Your task to perform on an android device: Search for "razer nari" on ebay.com, select the first entry, add it to the cart, then select checkout. Image 0: 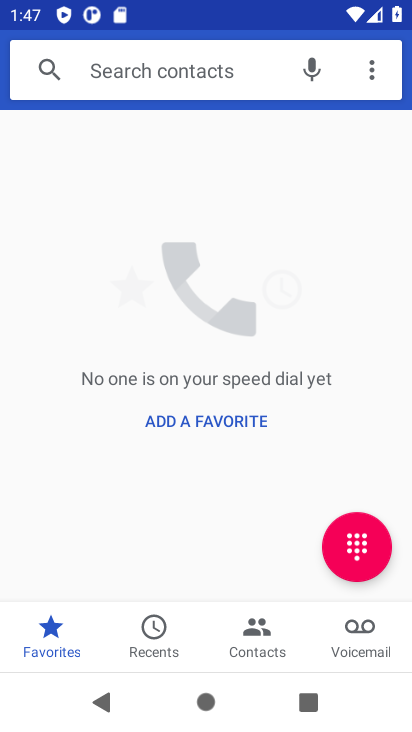
Step 0: press home button
Your task to perform on an android device: Search for "razer nari" on ebay.com, select the first entry, add it to the cart, then select checkout. Image 1: 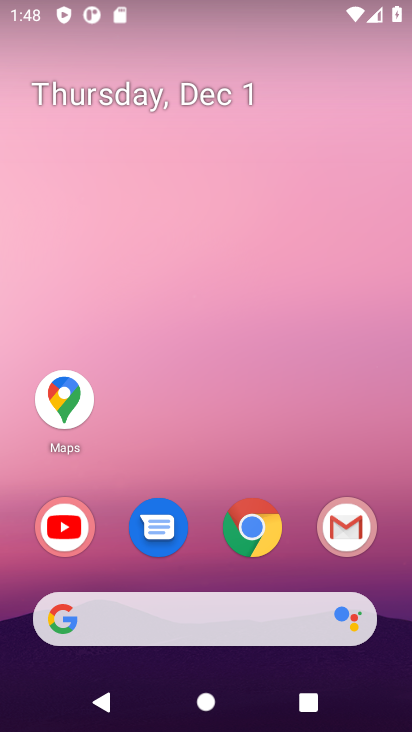
Step 1: click (247, 532)
Your task to perform on an android device: Search for "razer nari" on ebay.com, select the first entry, add it to the cart, then select checkout. Image 2: 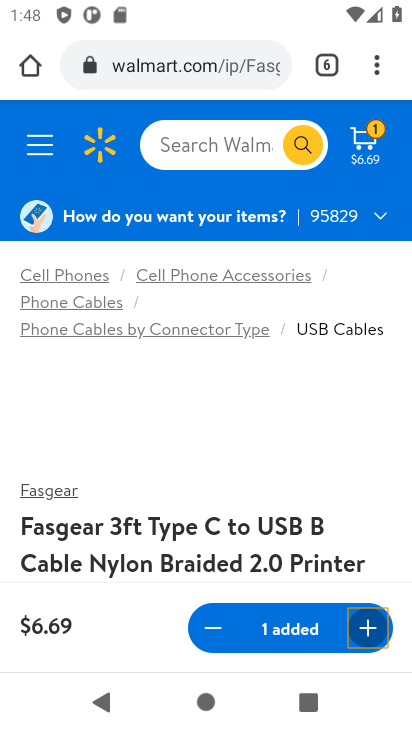
Step 2: click (183, 70)
Your task to perform on an android device: Search for "razer nari" on ebay.com, select the first entry, add it to the cart, then select checkout. Image 3: 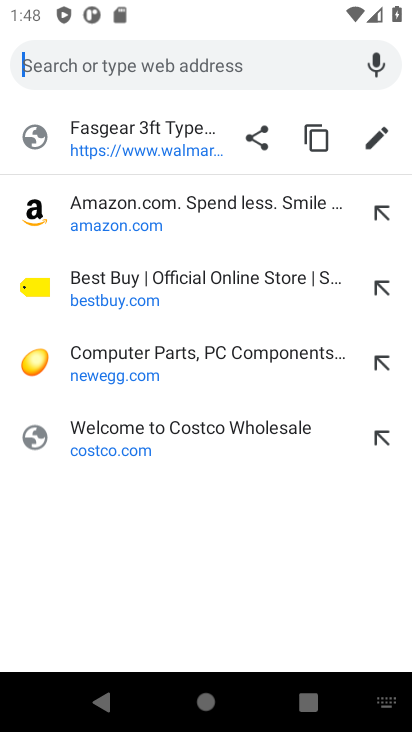
Step 3: type "ebay.com"
Your task to perform on an android device: Search for "razer nari" on ebay.com, select the first entry, add it to the cart, then select checkout. Image 4: 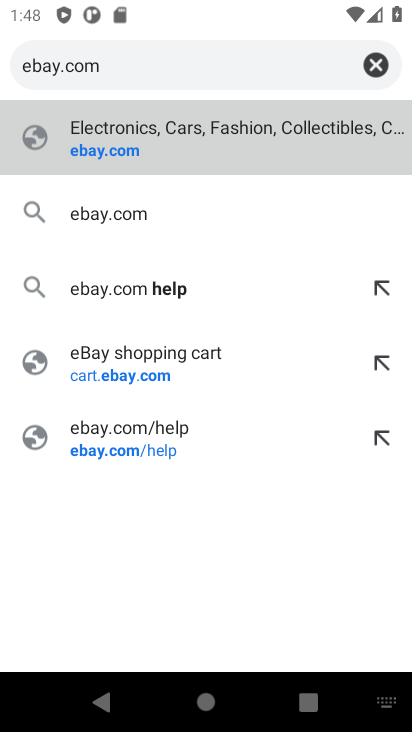
Step 4: click (119, 148)
Your task to perform on an android device: Search for "razer nari" on ebay.com, select the first entry, add it to the cart, then select checkout. Image 5: 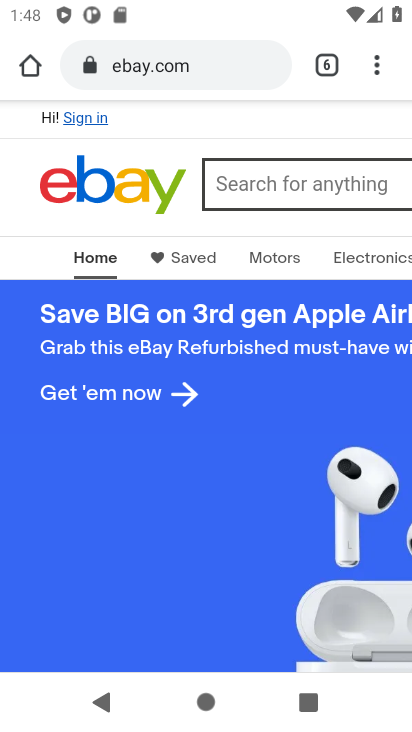
Step 5: click (326, 174)
Your task to perform on an android device: Search for "razer nari" on ebay.com, select the first entry, add it to the cart, then select checkout. Image 6: 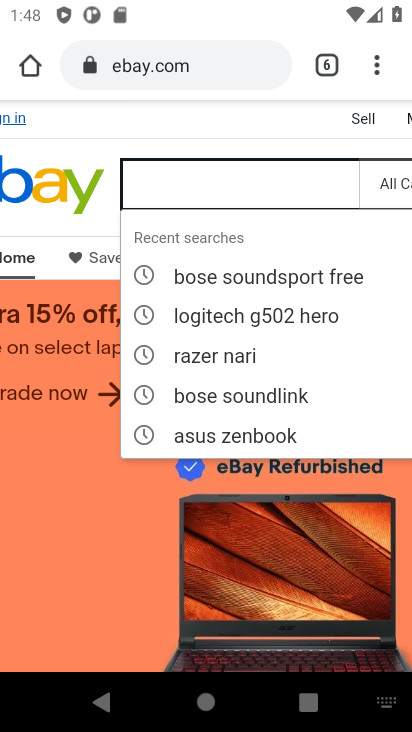
Step 6: type "razer nari"
Your task to perform on an android device: Search for "razer nari" on ebay.com, select the first entry, add it to the cart, then select checkout. Image 7: 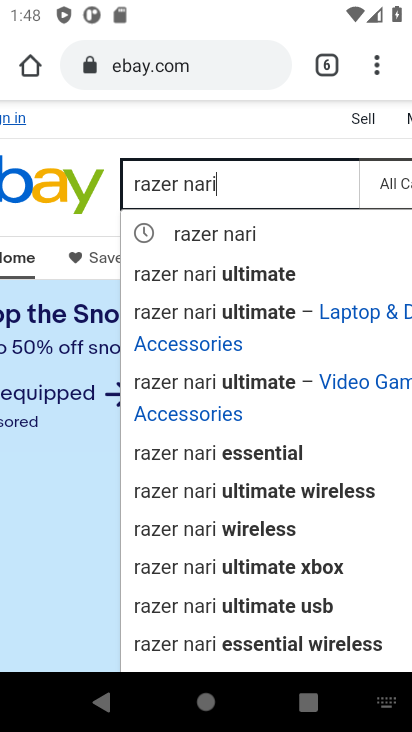
Step 7: click (200, 242)
Your task to perform on an android device: Search for "razer nari" on ebay.com, select the first entry, add it to the cart, then select checkout. Image 8: 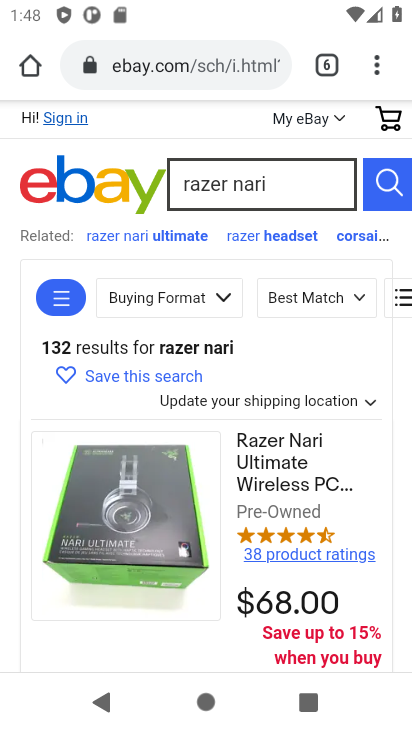
Step 8: drag from (310, 474) to (310, 342)
Your task to perform on an android device: Search for "razer nari" on ebay.com, select the first entry, add it to the cart, then select checkout. Image 9: 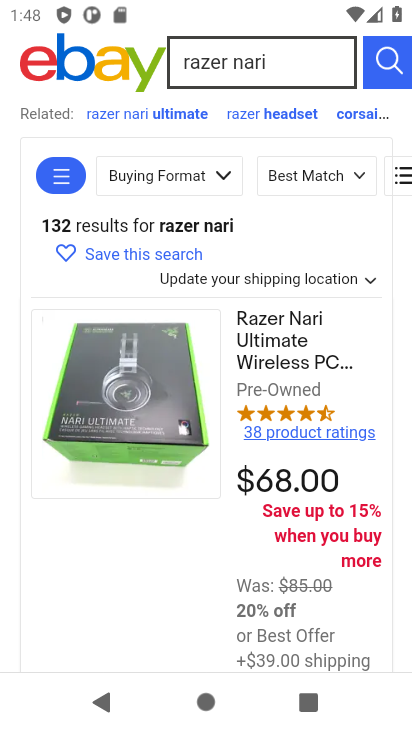
Step 9: click (289, 370)
Your task to perform on an android device: Search for "razer nari" on ebay.com, select the first entry, add it to the cart, then select checkout. Image 10: 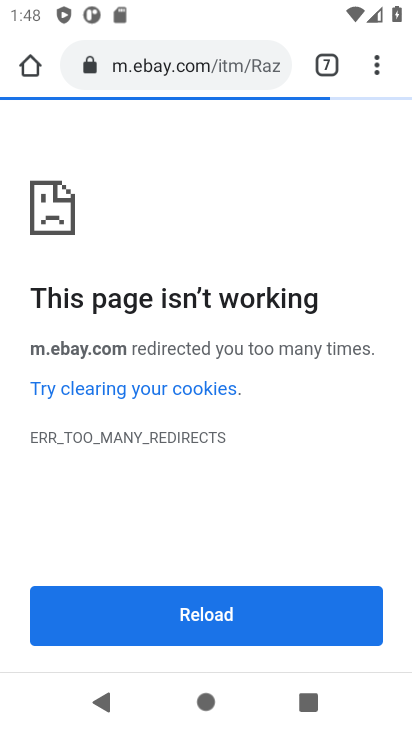
Step 10: task complete